Your task to perform on an android device: change the clock display to analog Image 0: 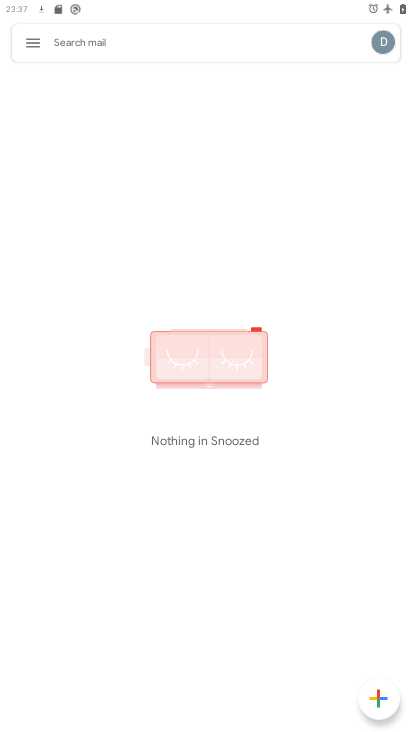
Step 0: press home button
Your task to perform on an android device: change the clock display to analog Image 1: 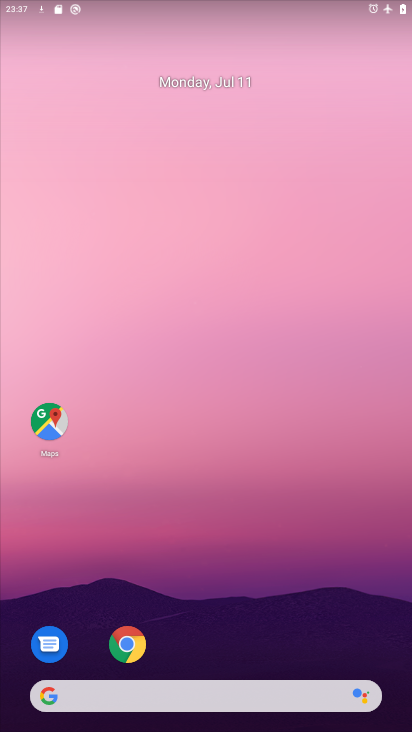
Step 1: drag from (267, 642) to (263, 188)
Your task to perform on an android device: change the clock display to analog Image 2: 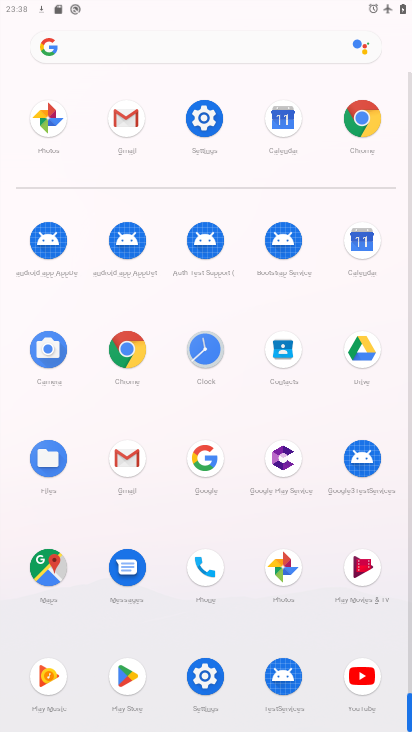
Step 2: click (206, 346)
Your task to perform on an android device: change the clock display to analog Image 3: 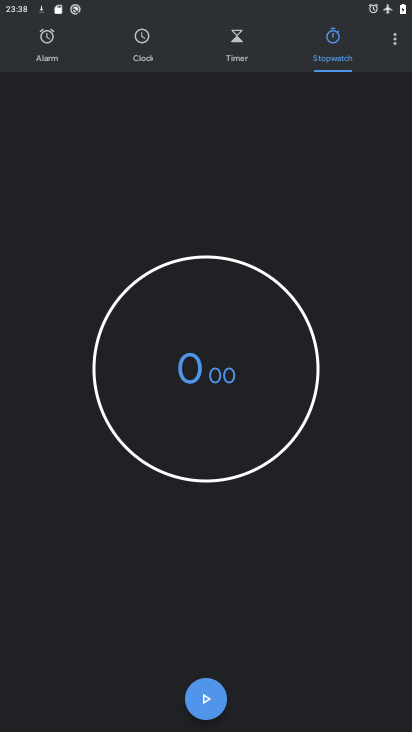
Step 3: click (395, 37)
Your task to perform on an android device: change the clock display to analog Image 4: 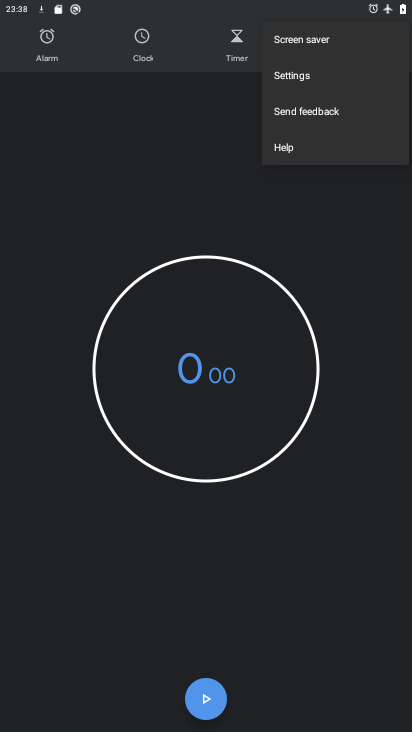
Step 4: click (294, 86)
Your task to perform on an android device: change the clock display to analog Image 5: 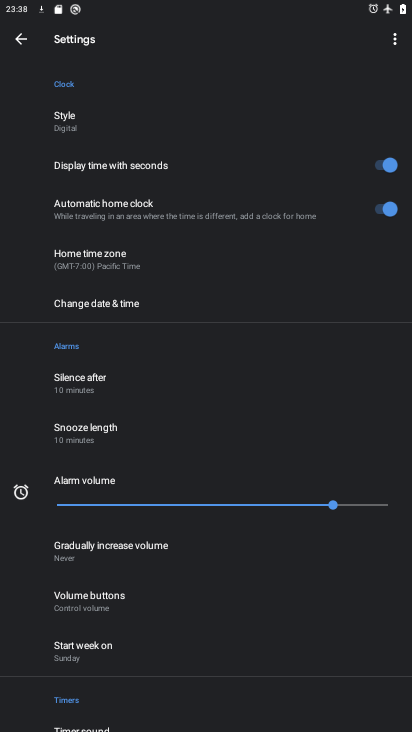
Step 5: click (72, 116)
Your task to perform on an android device: change the clock display to analog Image 6: 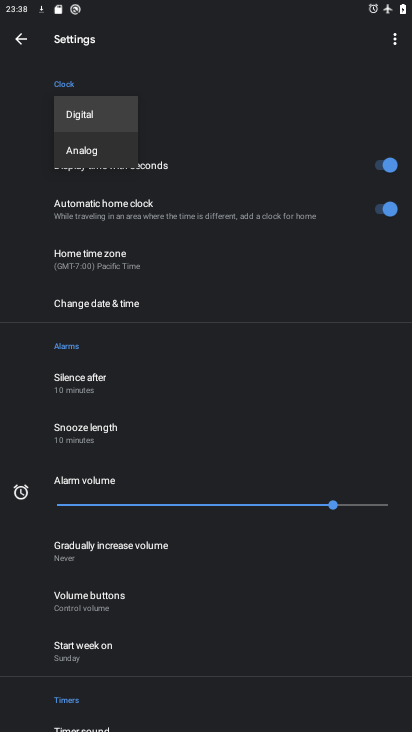
Step 6: click (98, 140)
Your task to perform on an android device: change the clock display to analog Image 7: 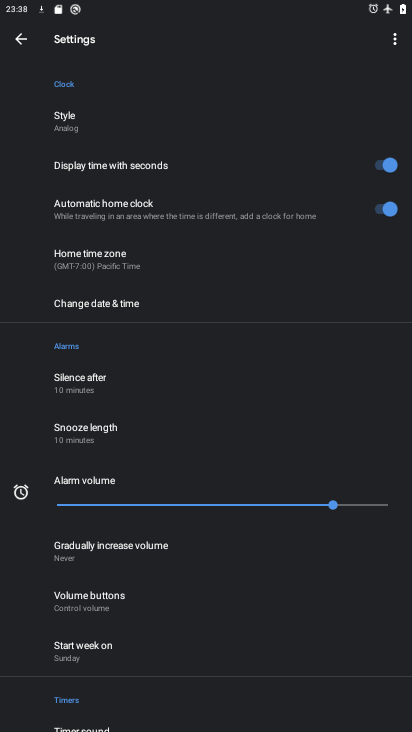
Step 7: task complete